Your task to perform on an android device: open app "Venmo" Image 0: 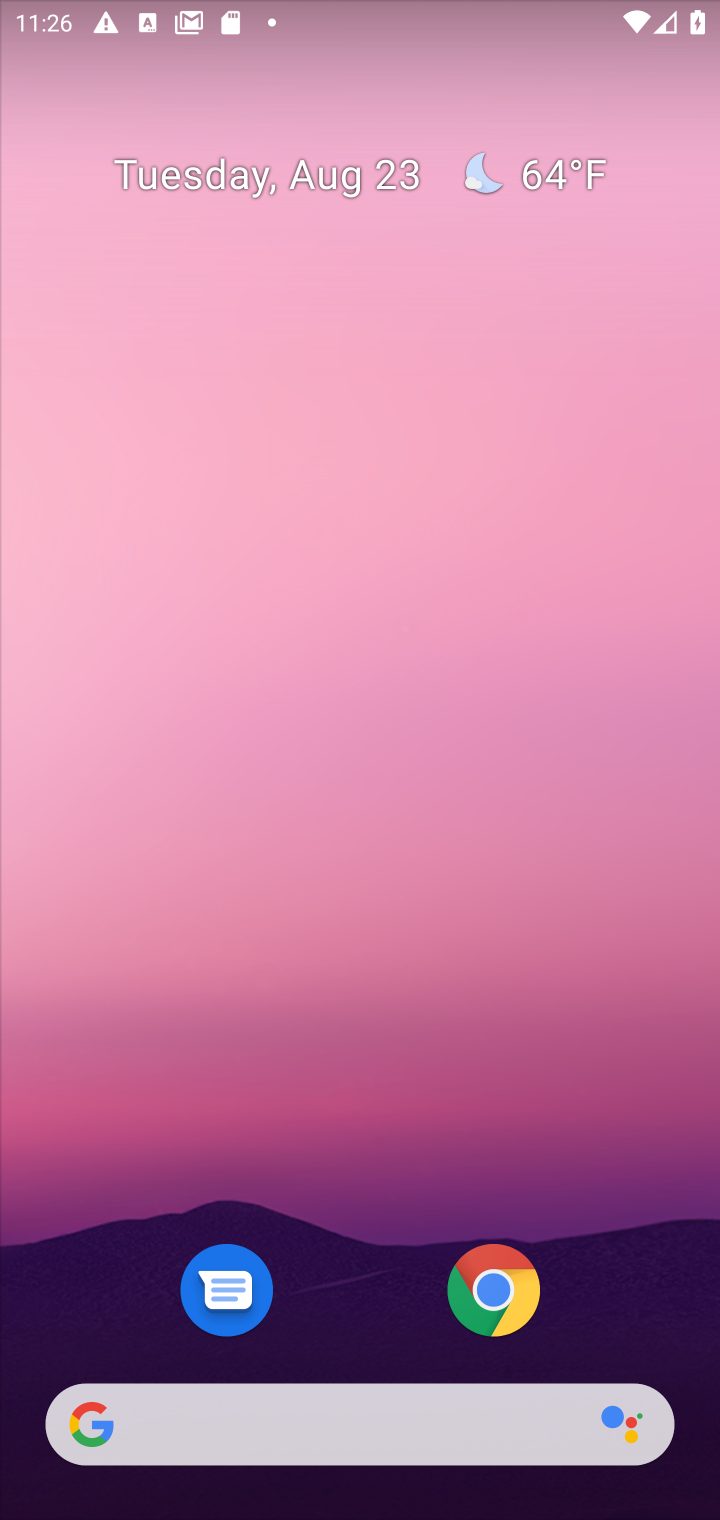
Step 0: press home button
Your task to perform on an android device: open app "Venmo" Image 1: 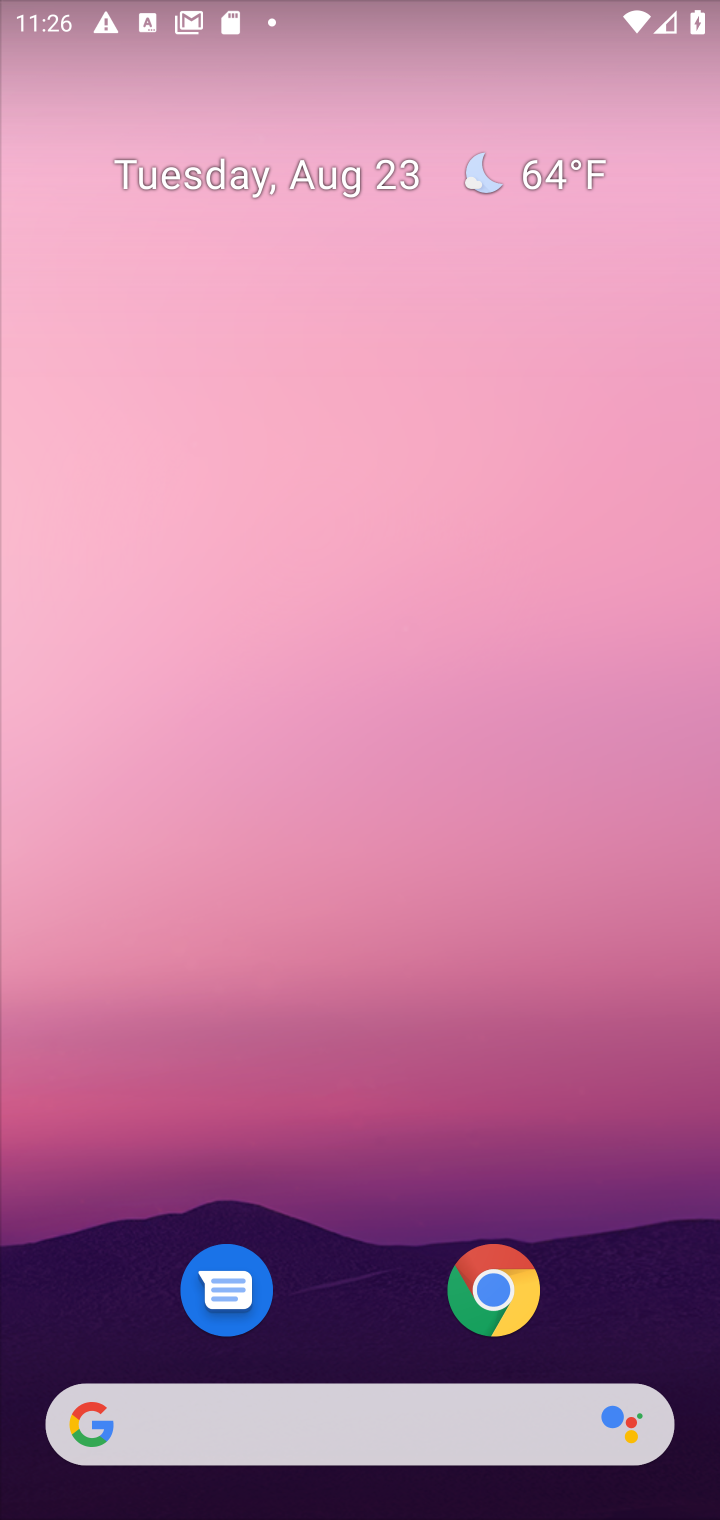
Step 1: drag from (352, 1116) to (346, 71)
Your task to perform on an android device: open app "Venmo" Image 2: 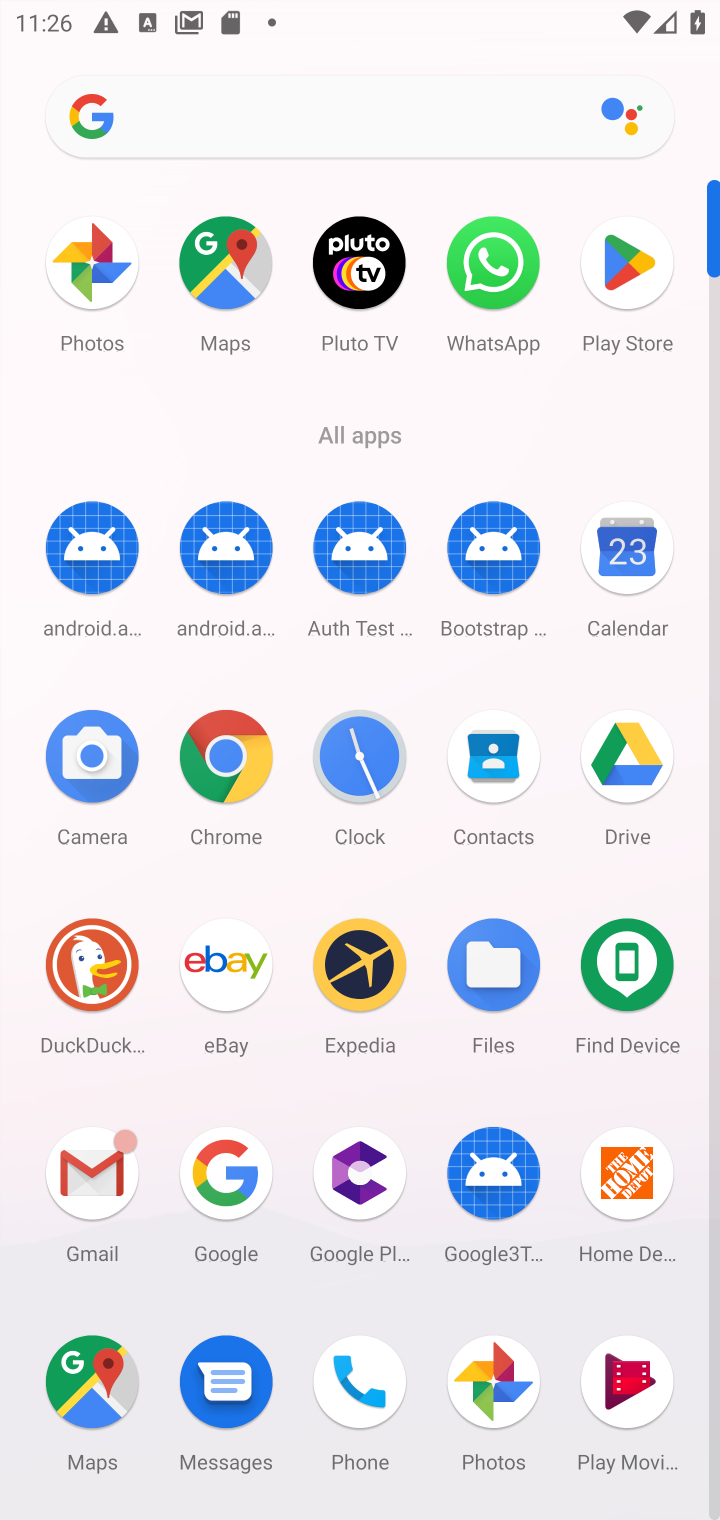
Step 2: click (620, 266)
Your task to perform on an android device: open app "Venmo" Image 3: 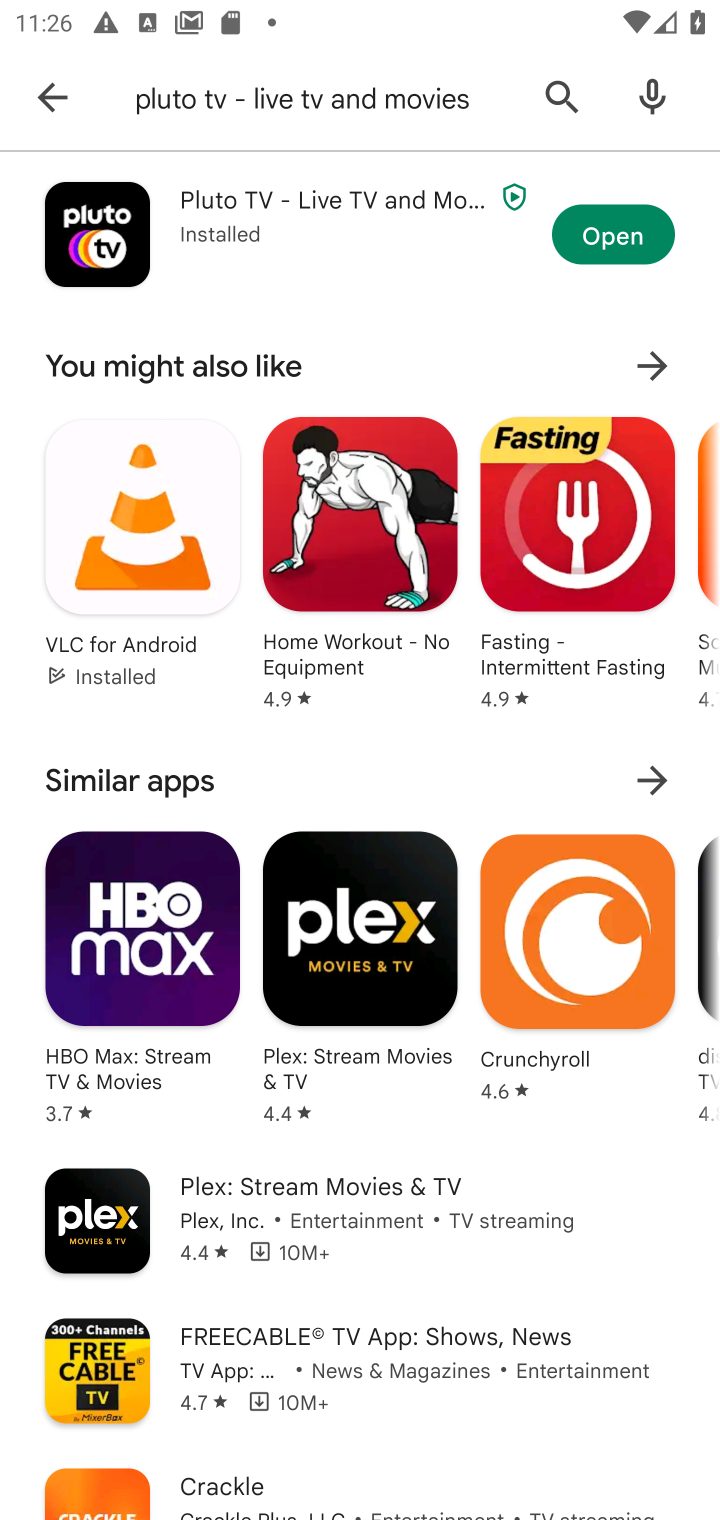
Step 3: click (559, 93)
Your task to perform on an android device: open app "Venmo" Image 4: 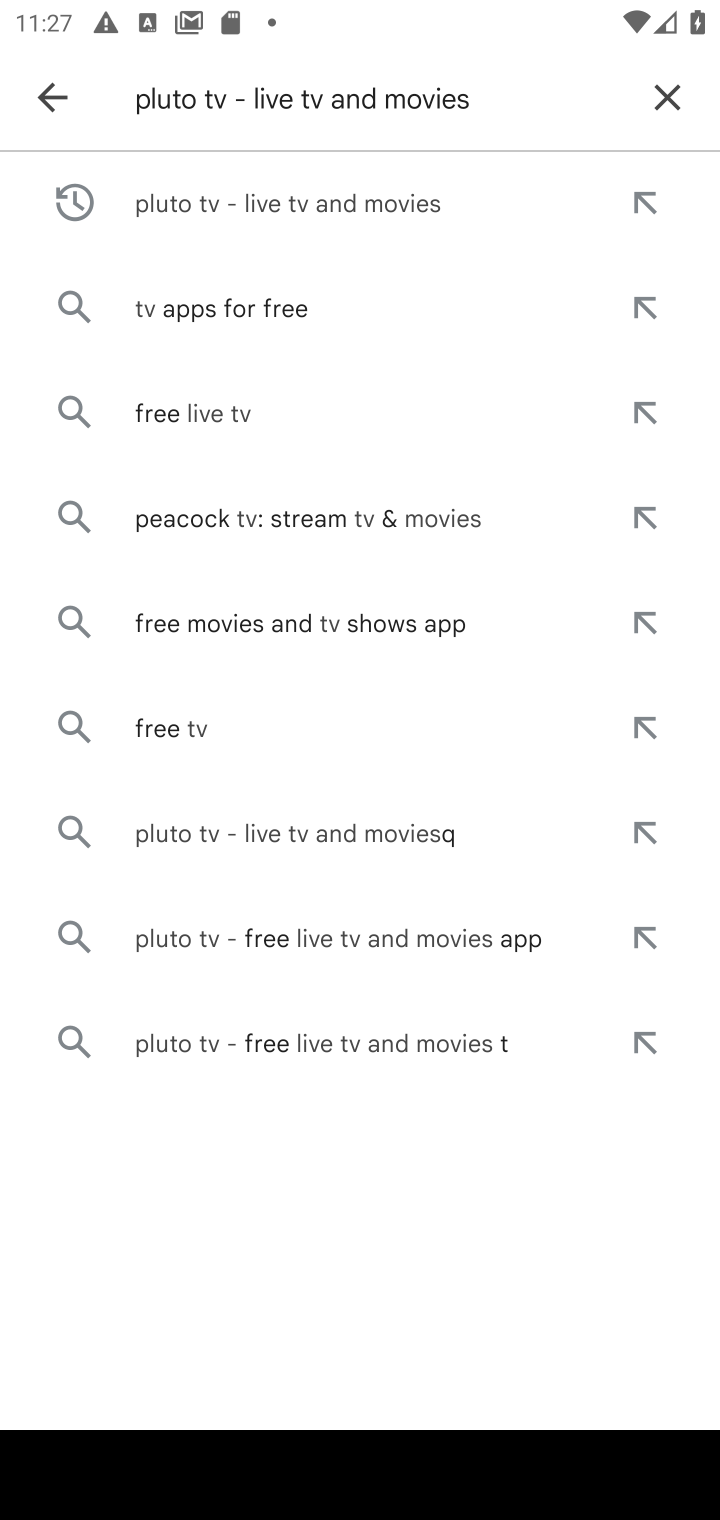
Step 4: click (675, 86)
Your task to perform on an android device: open app "Venmo" Image 5: 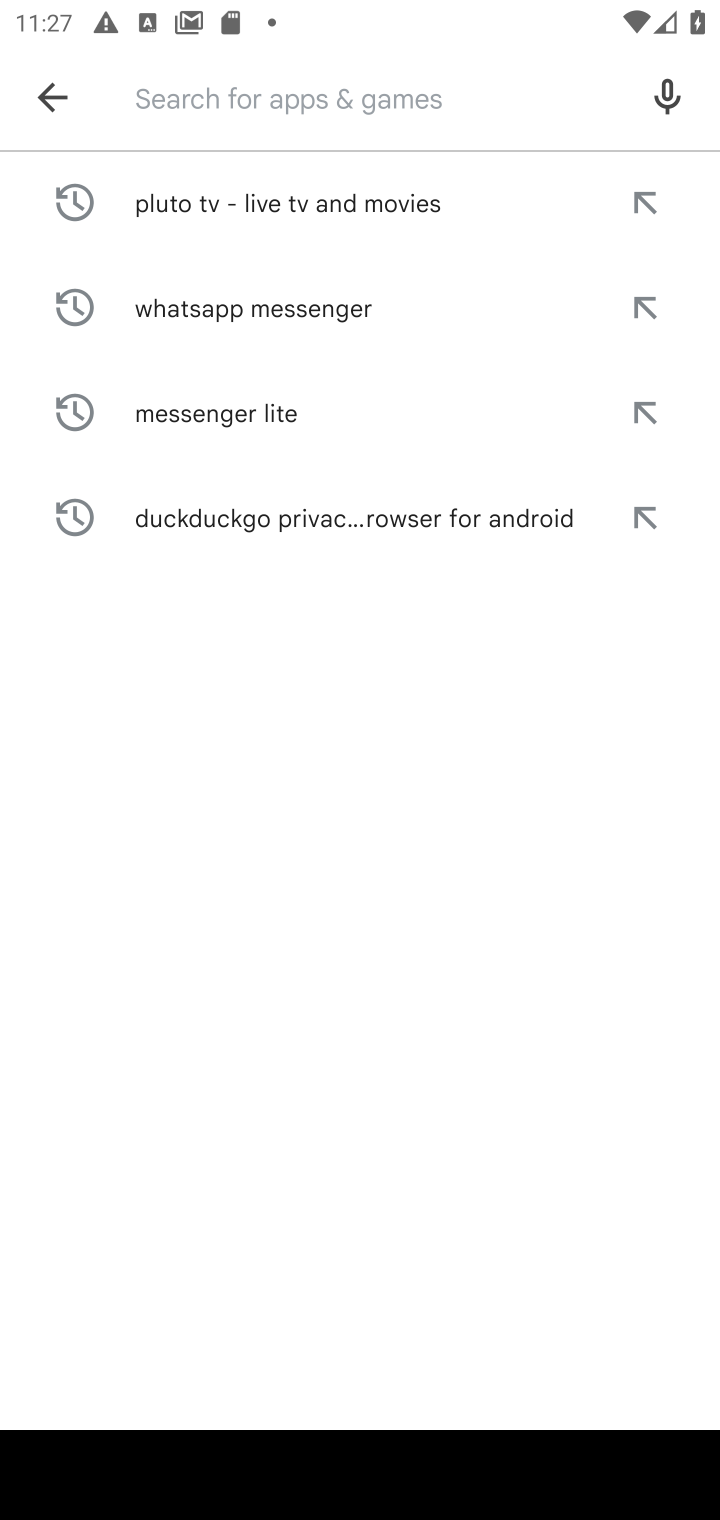
Step 5: type "Venmo"
Your task to perform on an android device: open app "Venmo" Image 6: 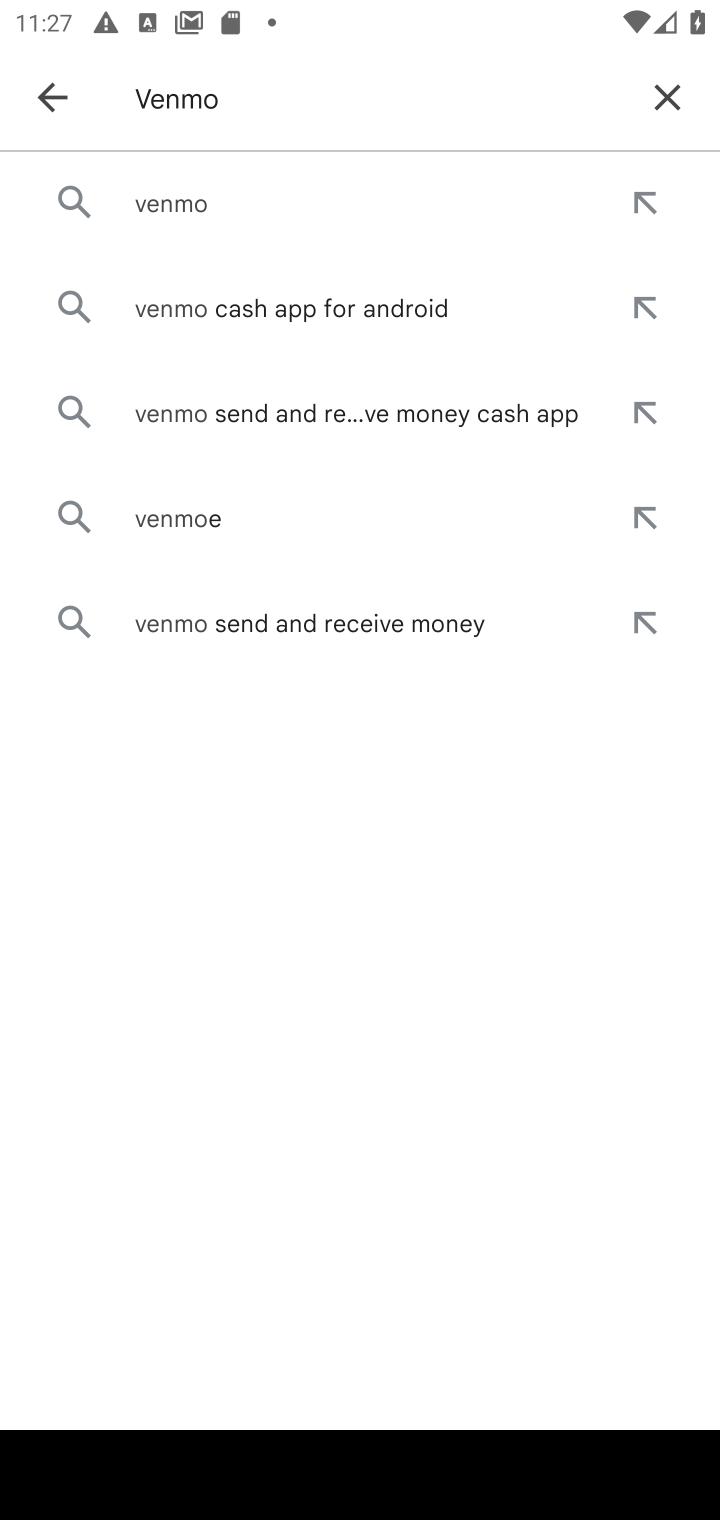
Step 6: click (164, 205)
Your task to perform on an android device: open app "Venmo" Image 7: 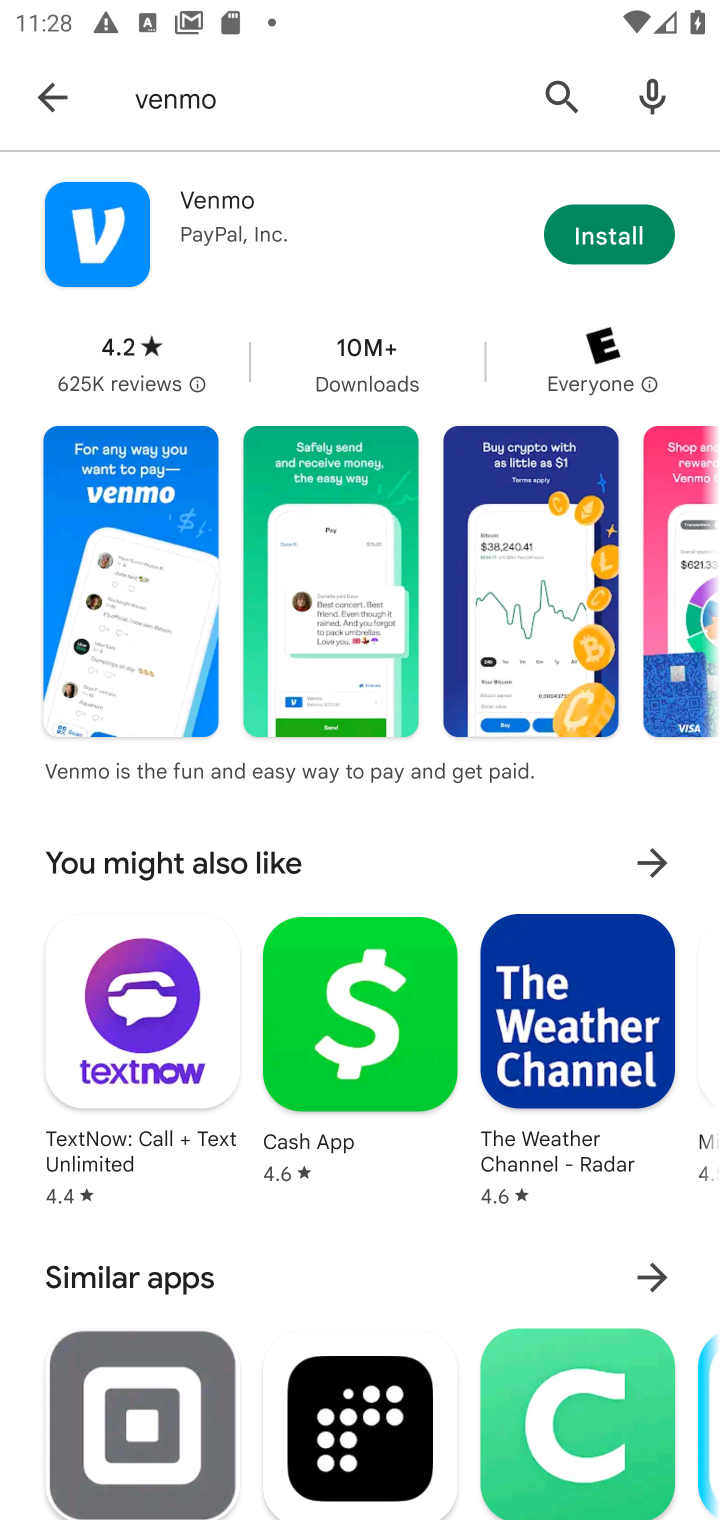
Step 7: task complete